Your task to perform on an android device: Open Reddit.com Image 0: 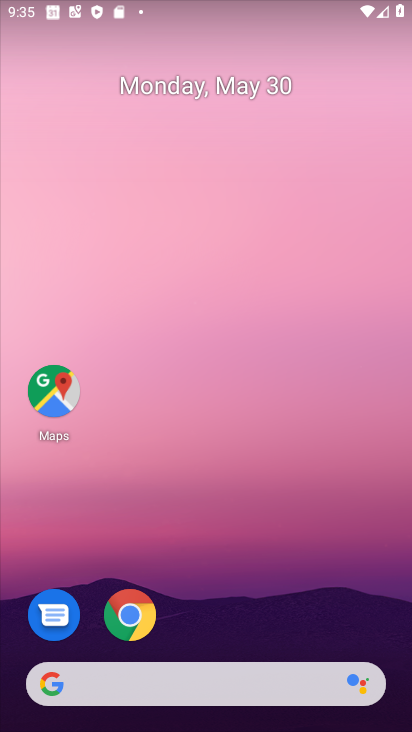
Step 0: click (134, 613)
Your task to perform on an android device: Open Reddit.com Image 1: 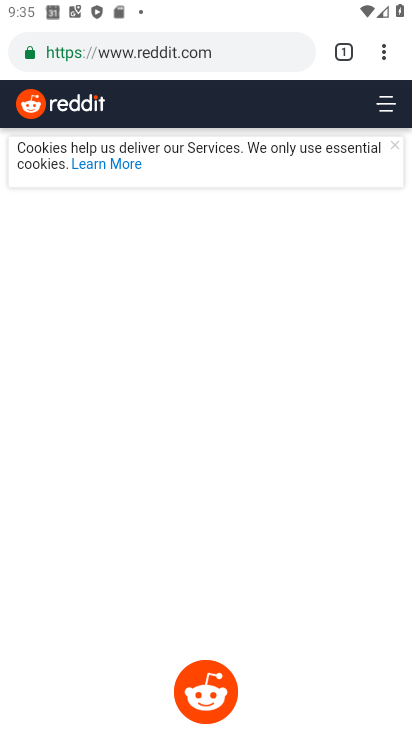
Step 1: task complete